Your task to perform on an android device: check out phone information Image 0: 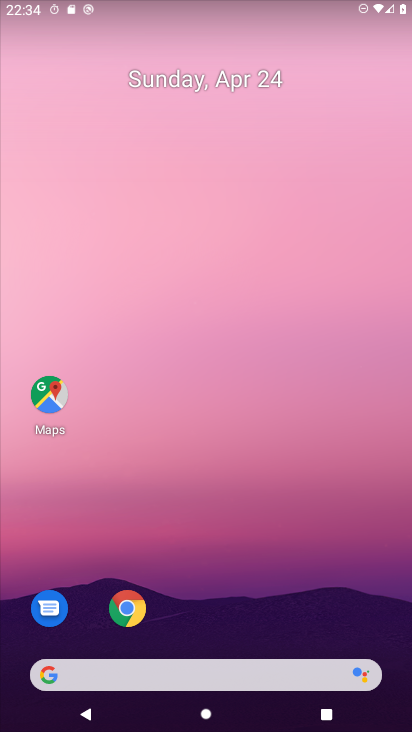
Step 0: drag from (292, 583) to (289, 72)
Your task to perform on an android device: check out phone information Image 1: 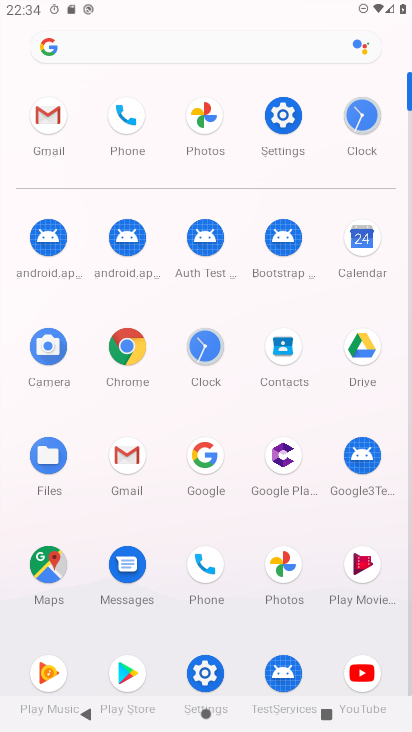
Step 1: click (205, 544)
Your task to perform on an android device: check out phone information Image 2: 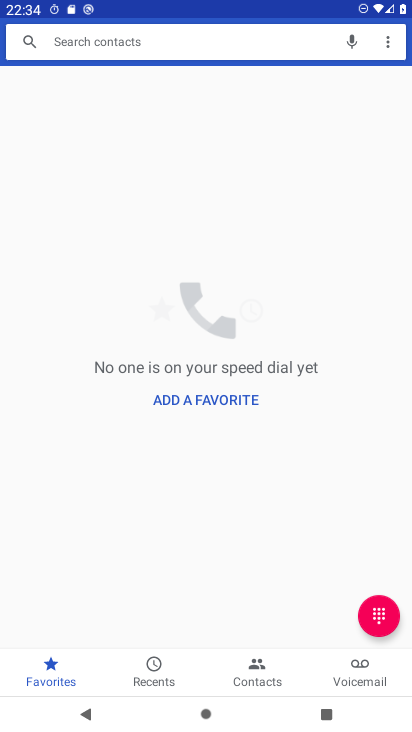
Step 2: click (383, 40)
Your task to perform on an android device: check out phone information Image 3: 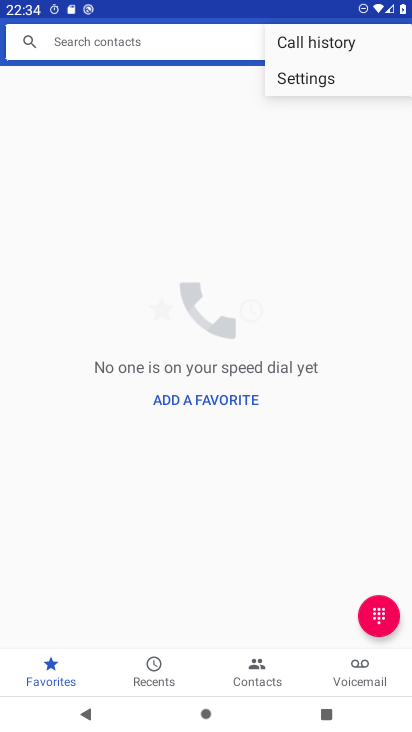
Step 3: click (348, 79)
Your task to perform on an android device: check out phone information Image 4: 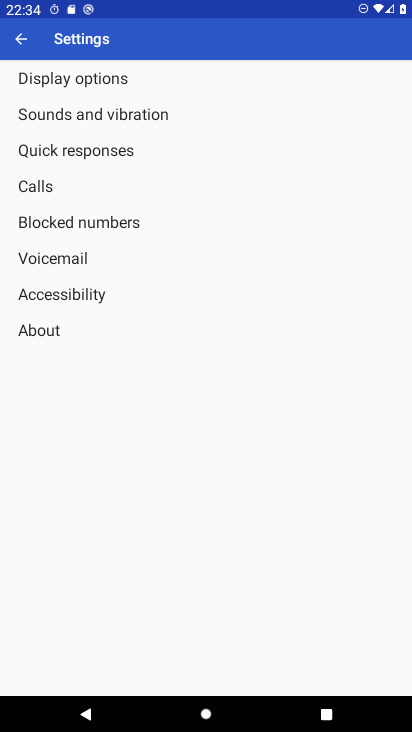
Step 4: click (90, 324)
Your task to perform on an android device: check out phone information Image 5: 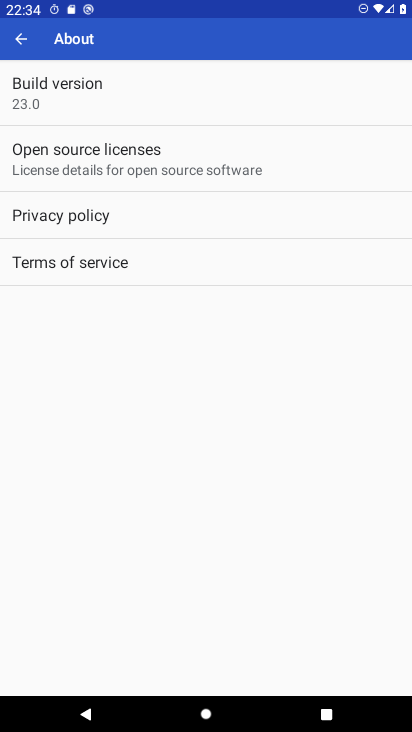
Step 5: task complete